Your task to perform on an android device: Go to Maps Image 0: 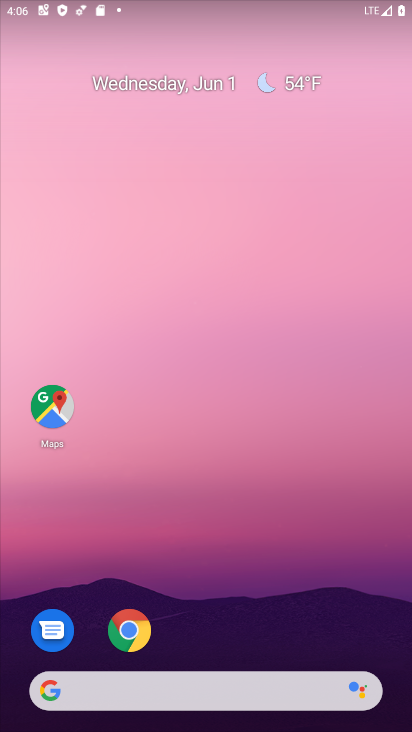
Step 0: drag from (286, 563) to (288, 64)
Your task to perform on an android device: Go to Maps Image 1: 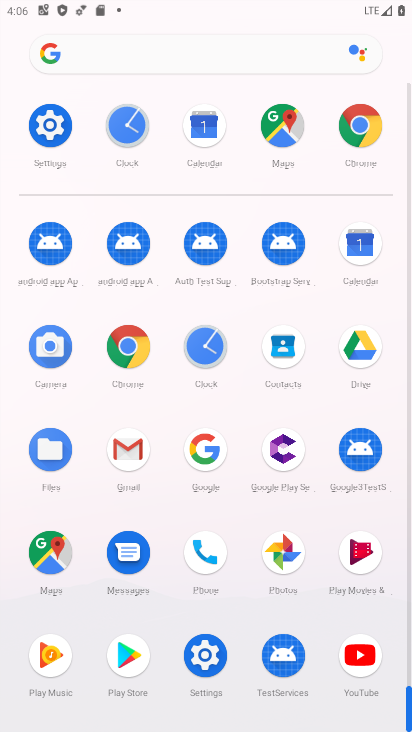
Step 1: drag from (12, 549) to (40, 195)
Your task to perform on an android device: Go to Maps Image 2: 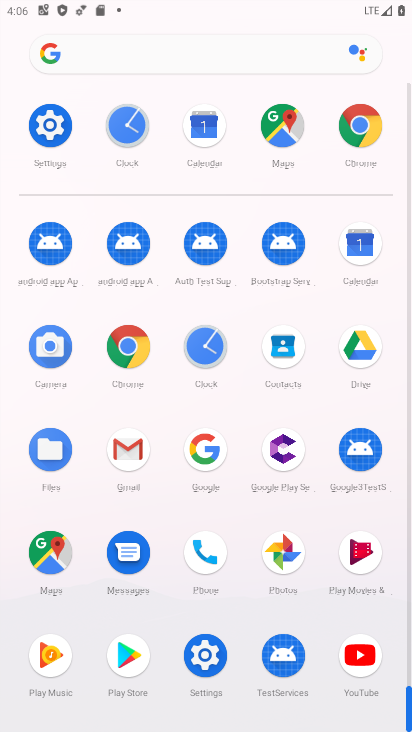
Step 2: click (56, 549)
Your task to perform on an android device: Go to Maps Image 3: 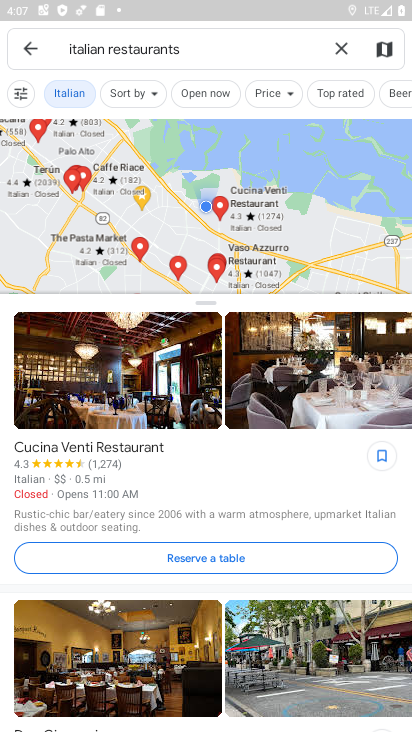
Step 3: click (25, 42)
Your task to perform on an android device: Go to Maps Image 4: 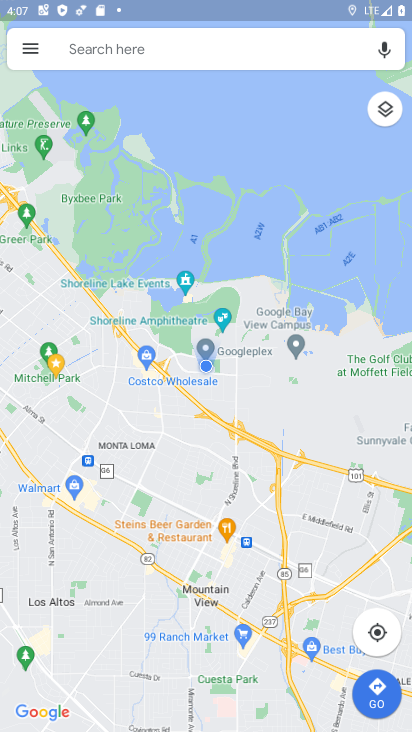
Step 4: task complete